Your task to perform on an android device: check google app version Image 0: 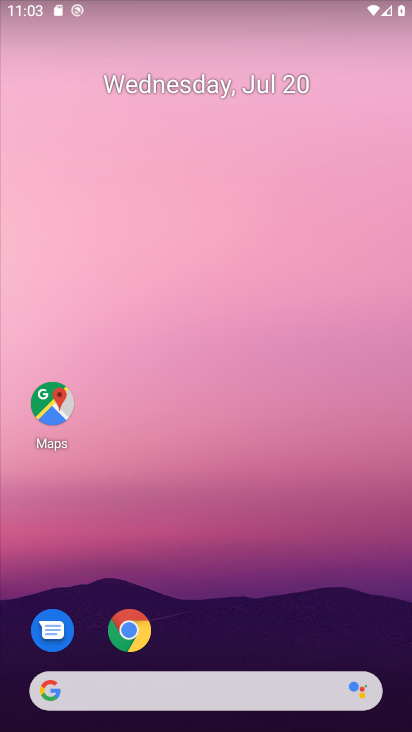
Step 0: drag from (273, 561) to (268, 218)
Your task to perform on an android device: check google app version Image 1: 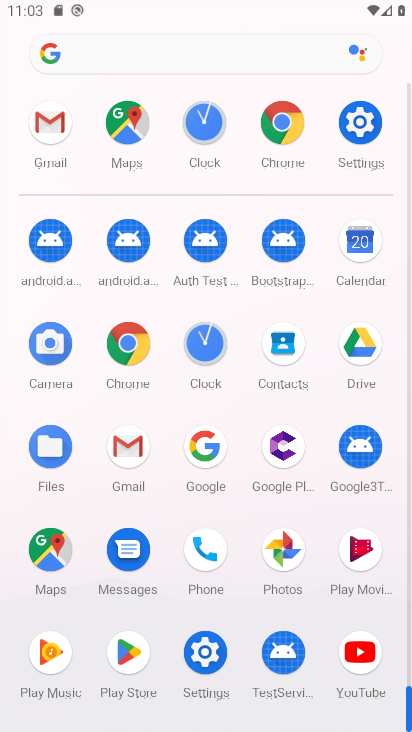
Step 1: click (203, 439)
Your task to perform on an android device: check google app version Image 2: 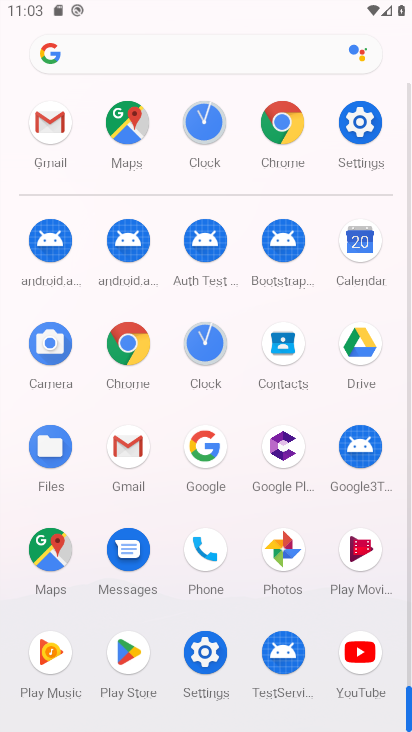
Step 2: click (203, 439)
Your task to perform on an android device: check google app version Image 3: 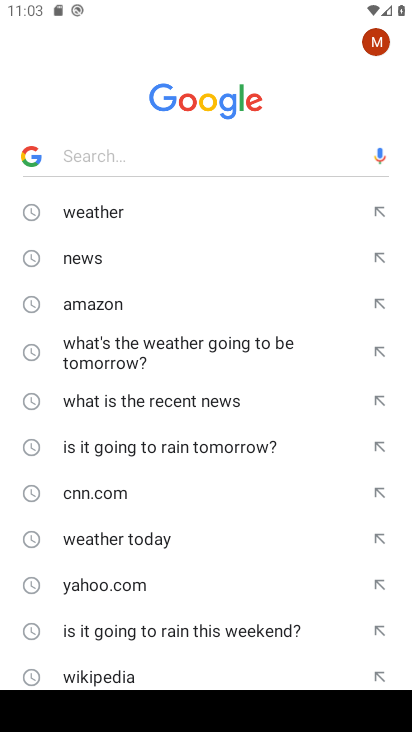
Step 3: press back button
Your task to perform on an android device: check google app version Image 4: 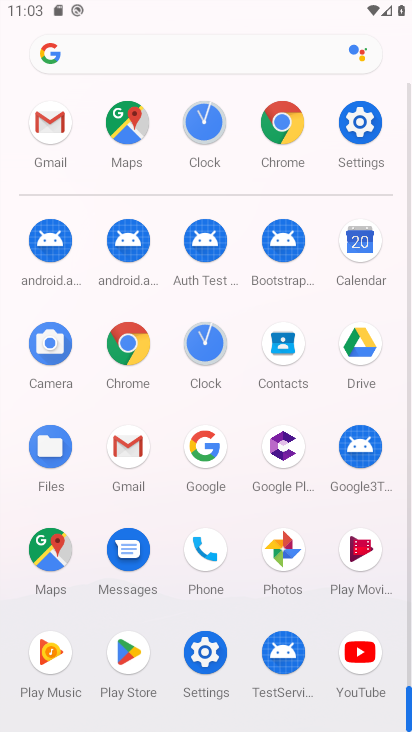
Step 4: click (206, 461)
Your task to perform on an android device: check google app version Image 5: 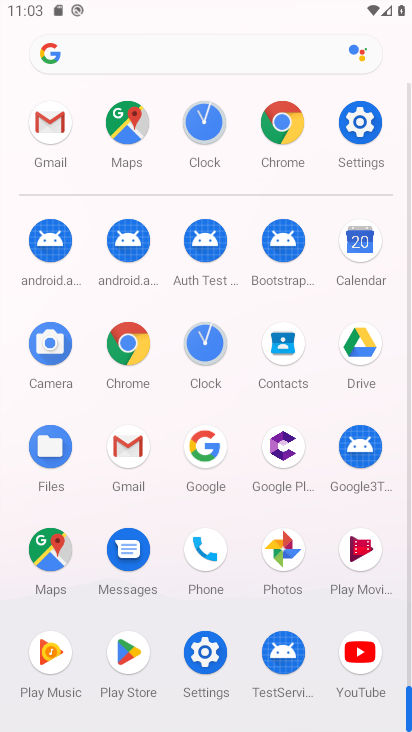
Step 5: click (206, 461)
Your task to perform on an android device: check google app version Image 6: 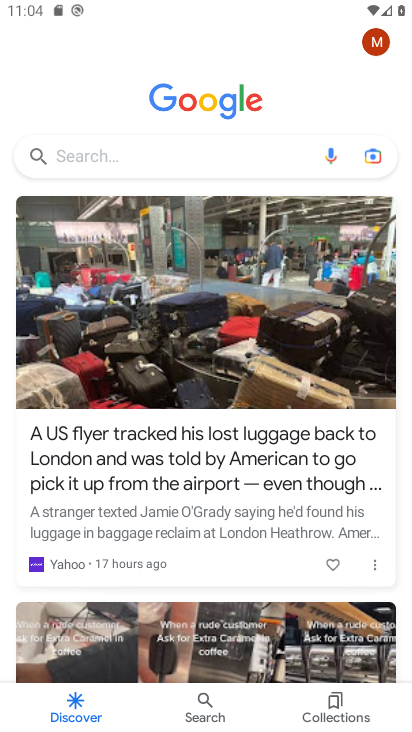
Step 6: click (378, 46)
Your task to perform on an android device: check google app version Image 7: 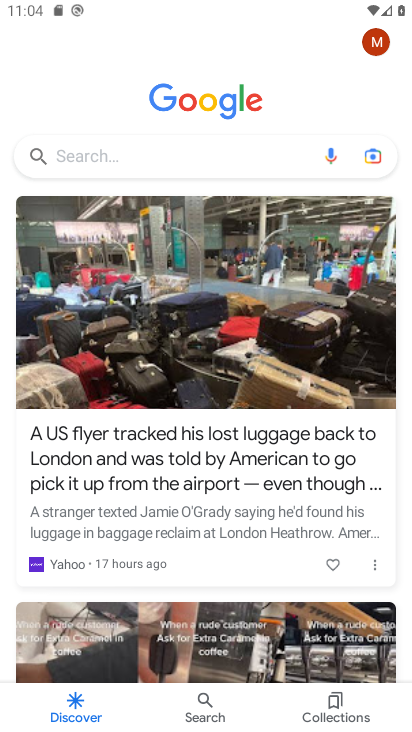
Step 7: click (408, 23)
Your task to perform on an android device: check google app version Image 8: 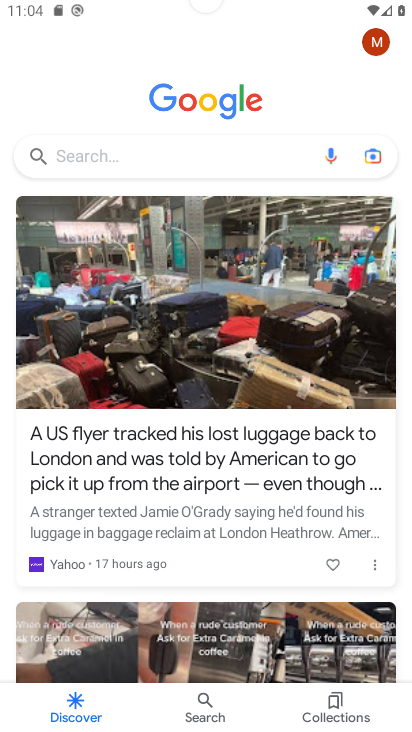
Step 8: click (381, 49)
Your task to perform on an android device: check google app version Image 9: 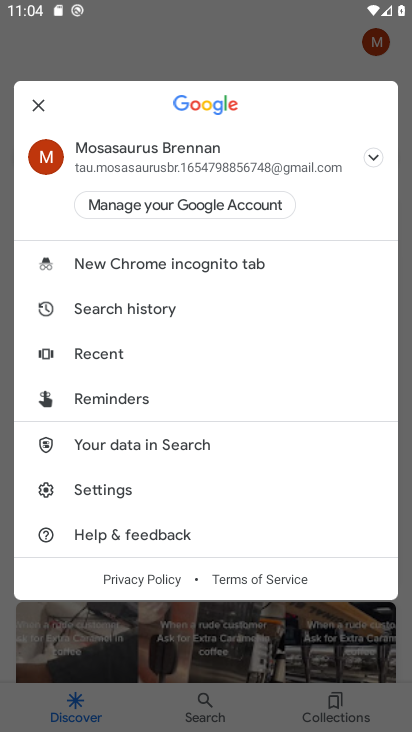
Step 9: click (376, 50)
Your task to perform on an android device: check google app version Image 10: 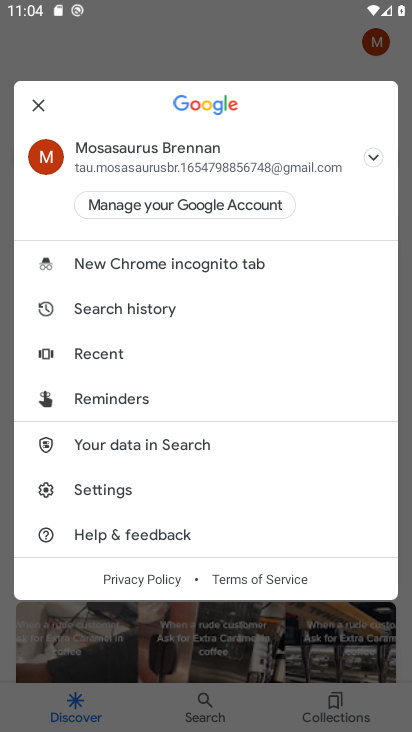
Step 10: click (376, 50)
Your task to perform on an android device: check google app version Image 11: 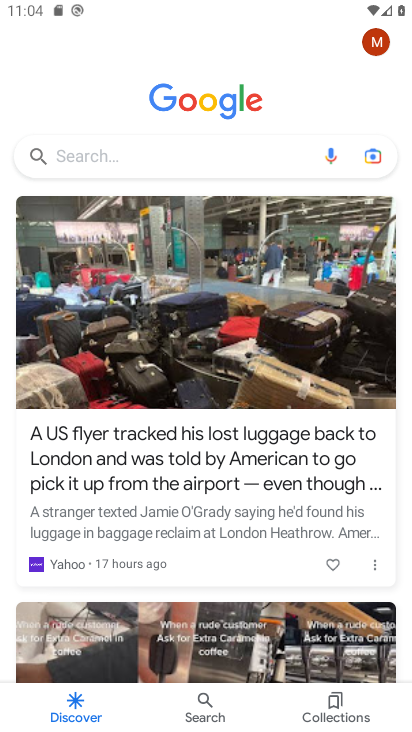
Step 11: click (373, 44)
Your task to perform on an android device: check google app version Image 12: 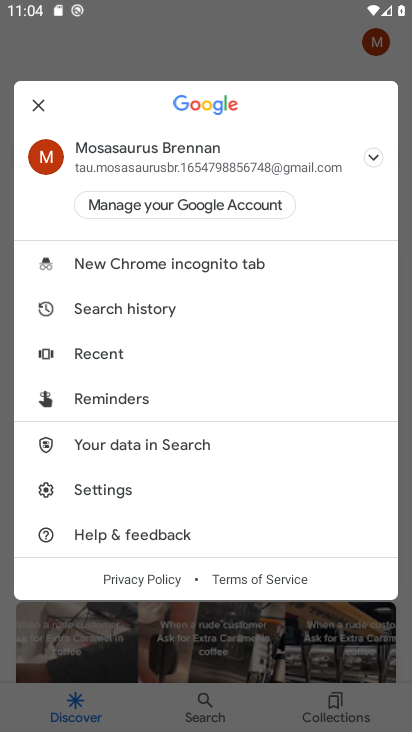
Step 12: click (104, 474)
Your task to perform on an android device: check google app version Image 13: 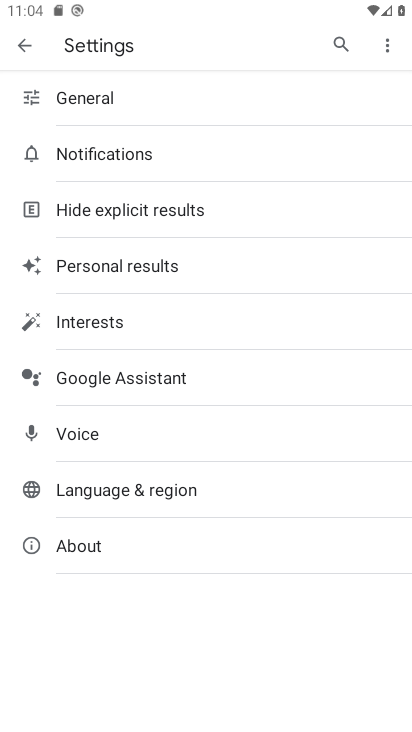
Step 13: click (82, 546)
Your task to perform on an android device: check google app version Image 14: 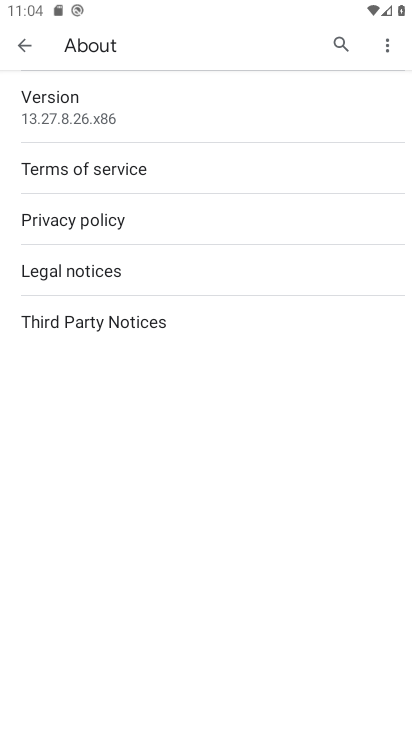
Step 14: click (75, 105)
Your task to perform on an android device: check google app version Image 15: 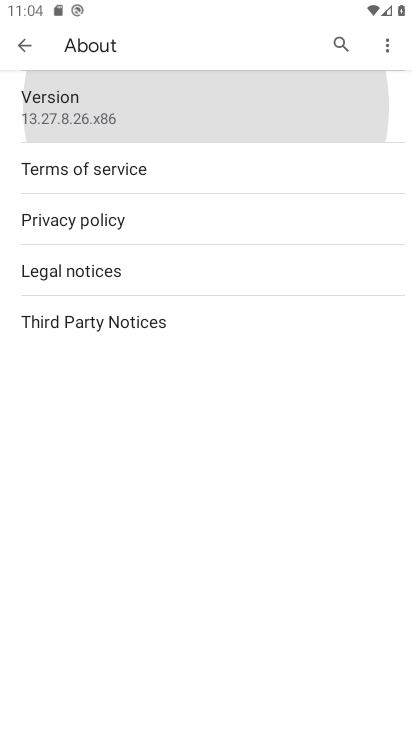
Step 15: click (74, 104)
Your task to perform on an android device: check google app version Image 16: 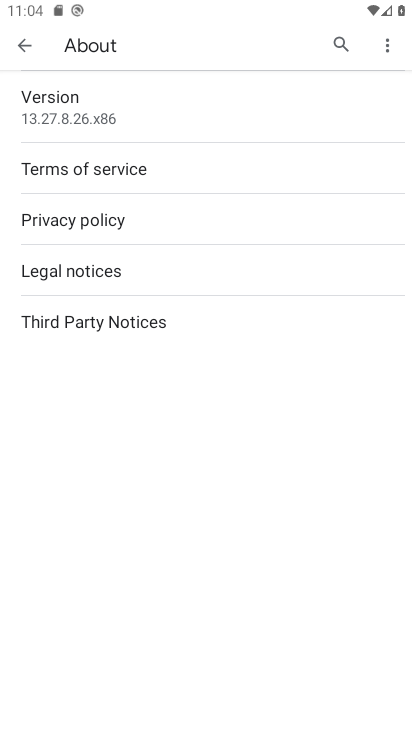
Step 16: task complete